Your task to perform on an android device: turn pop-ups off in chrome Image 0: 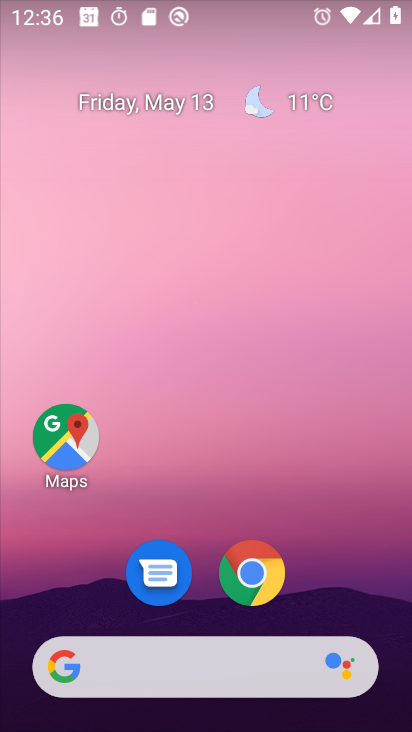
Step 0: click (248, 581)
Your task to perform on an android device: turn pop-ups off in chrome Image 1: 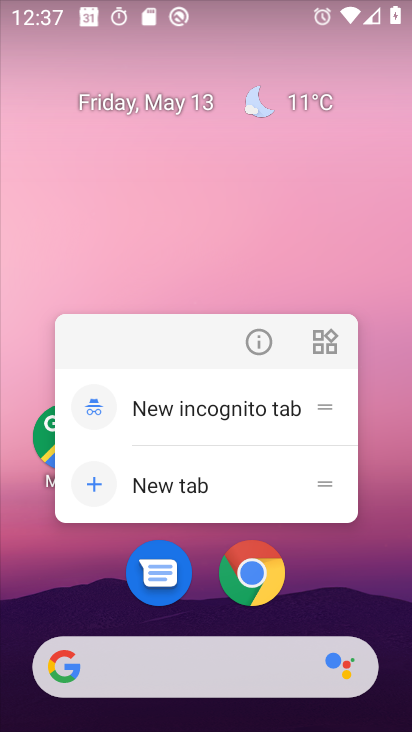
Step 1: click (248, 581)
Your task to perform on an android device: turn pop-ups off in chrome Image 2: 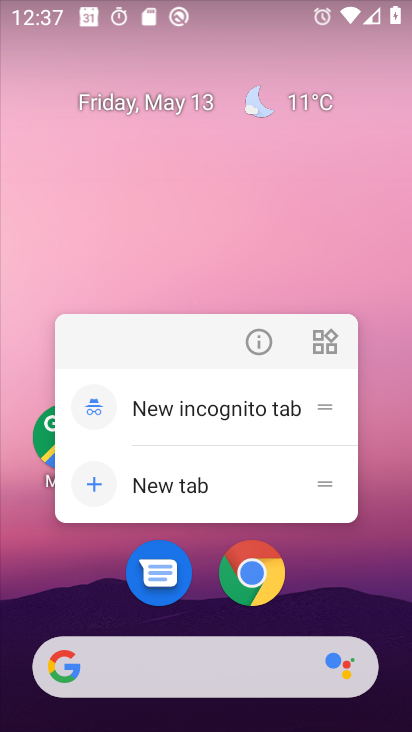
Step 2: click (252, 334)
Your task to perform on an android device: turn pop-ups off in chrome Image 3: 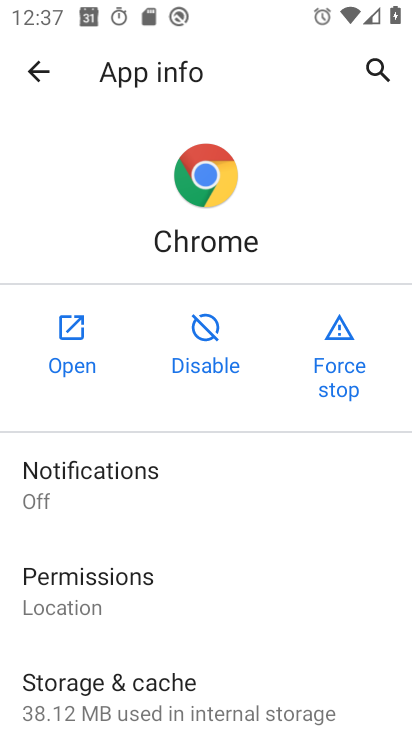
Step 3: click (250, 442)
Your task to perform on an android device: turn pop-ups off in chrome Image 4: 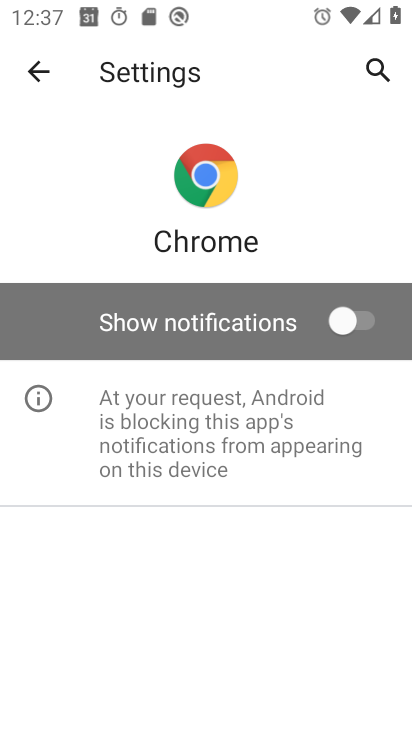
Step 4: click (34, 63)
Your task to perform on an android device: turn pop-ups off in chrome Image 5: 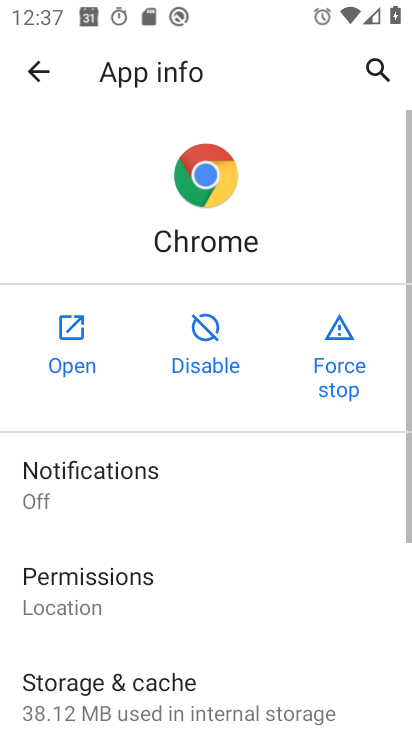
Step 5: drag from (281, 567) to (250, 370)
Your task to perform on an android device: turn pop-ups off in chrome Image 6: 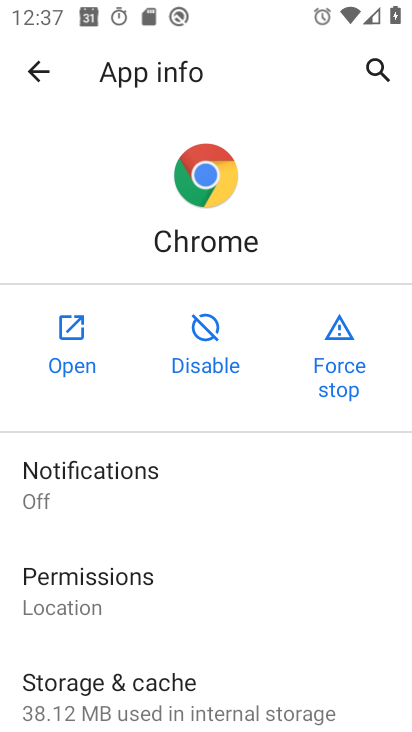
Step 6: drag from (308, 654) to (313, 301)
Your task to perform on an android device: turn pop-ups off in chrome Image 7: 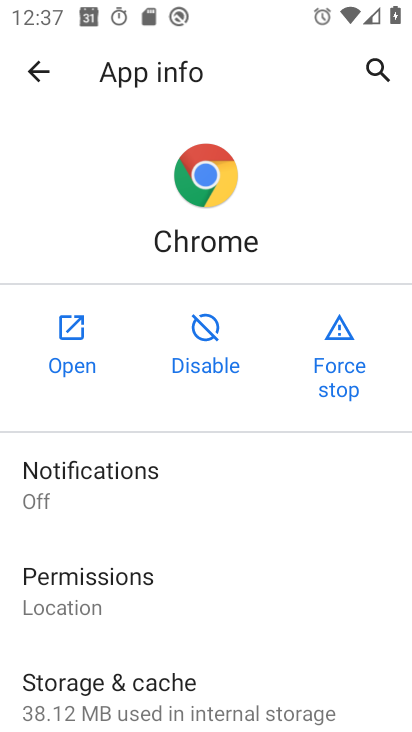
Step 7: drag from (379, 706) to (334, 301)
Your task to perform on an android device: turn pop-ups off in chrome Image 8: 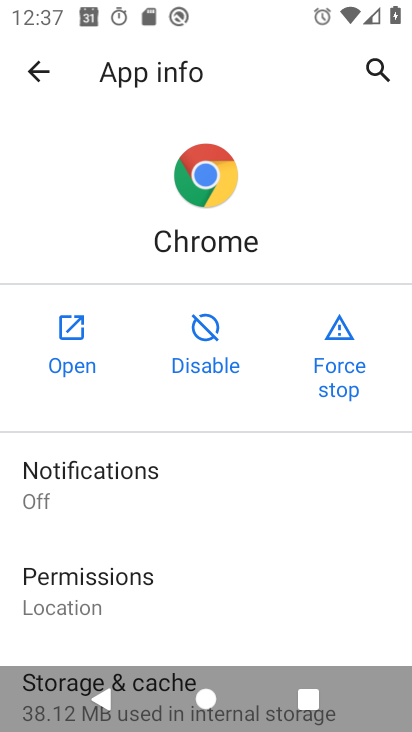
Step 8: drag from (304, 625) to (271, 299)
Your task to perform on an android device: turn pop-ups off in chrome Image 9: 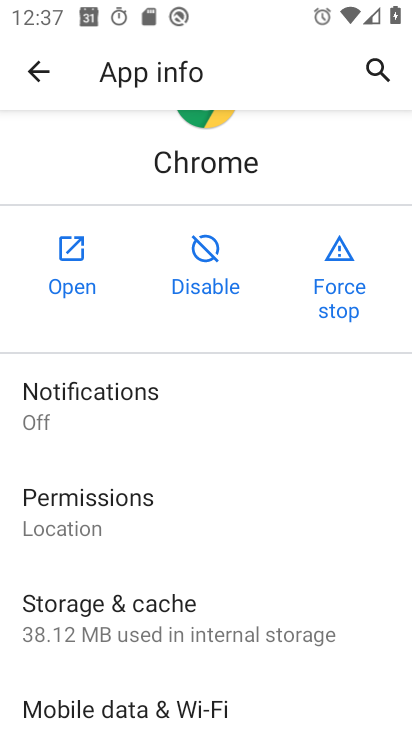
Step 9: drag from (388, 717) to (375, 429)
Your task to perform on an android device: turn pop-ups off in chrome Image 10: 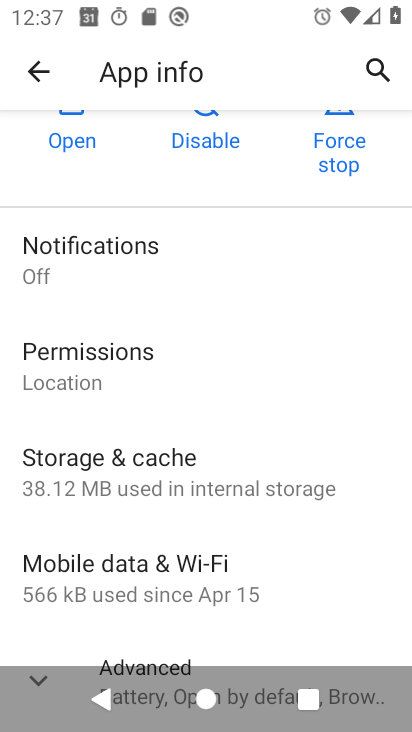
Step 10: drag from (386, 620) to (341, 286)
Your task to perform on an android device: turn pop-ups off in chrome Image 11: 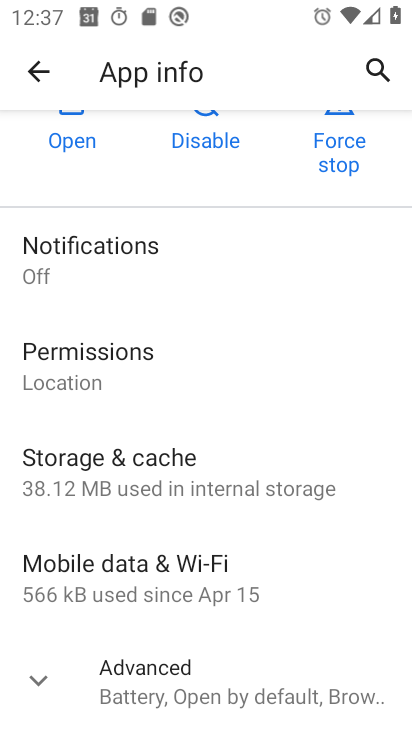
Step 11: click (33, 679)
Your task to perform on an android device: turn pop-ups off in chrome Image 12: 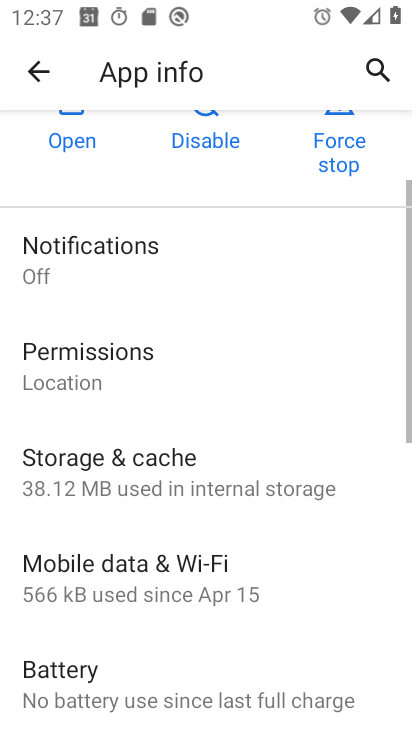
Step 12: drag from (333, 633) to (330, 370)
Your task to perform on an android device: turn pop-ups off in chrome Image 13: 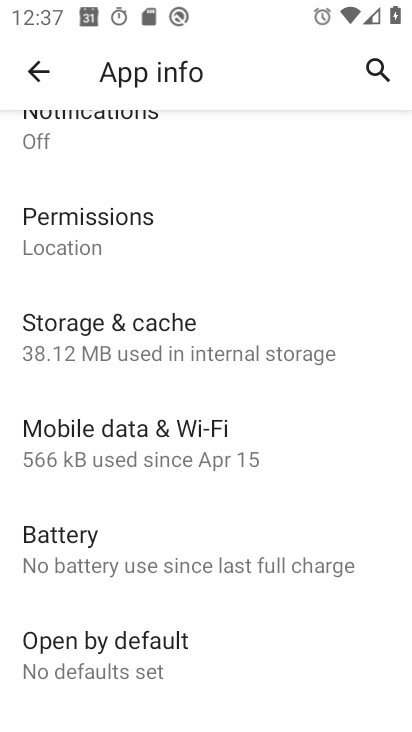
Step 13: drag from (327, 668) to (350, 355)
Your task to perform on an android device: turn pop-ups off in chrome Image 14: 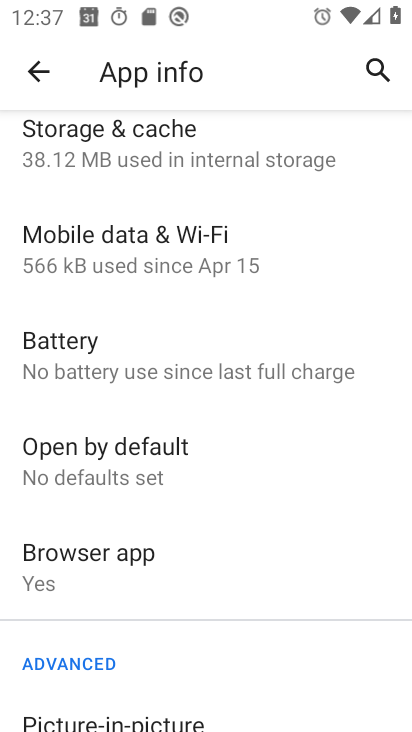
Step 14: drag from (342, 682) to (375, 330)
Your task to perform on an android device: turn pop-ups off in chrome Image 15: 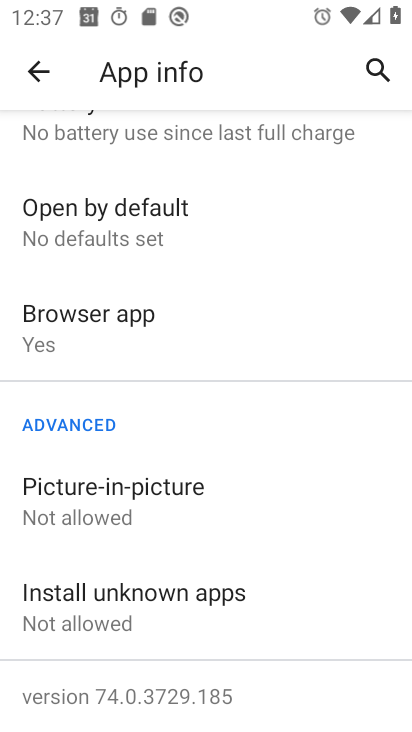
Step 15: drag from (294, 665) to (278, 303)
Your task to perform on an android device: turn pop-ups off in chrome Image 16: 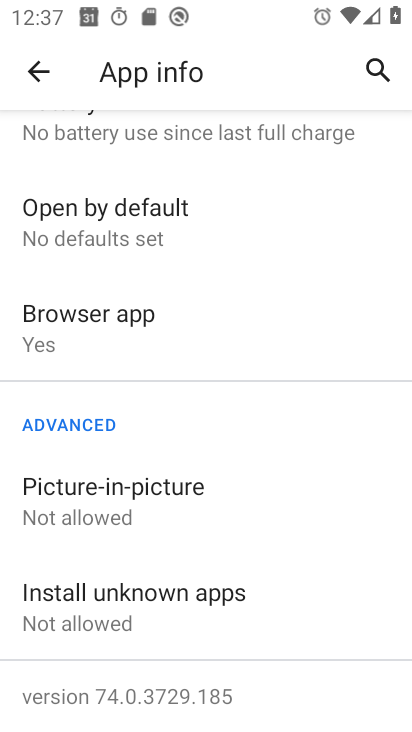
Step 16: click (90, 501)
Your task to perform on an android device: turn pop-ups off in chrome Image 17: 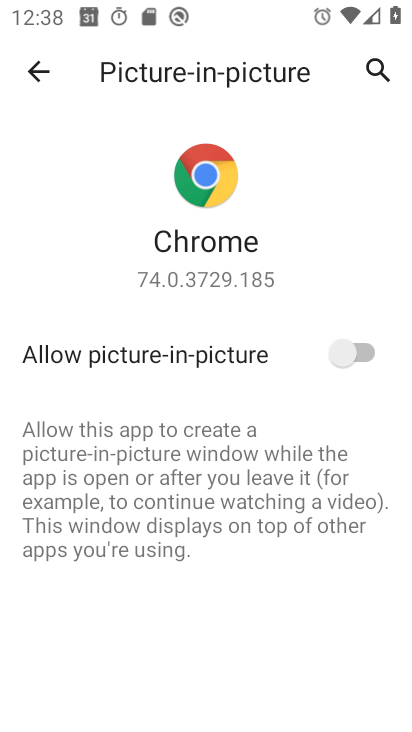
Step 17: task complete